Your task to perform on an android device: What's the weather today? Image 0: 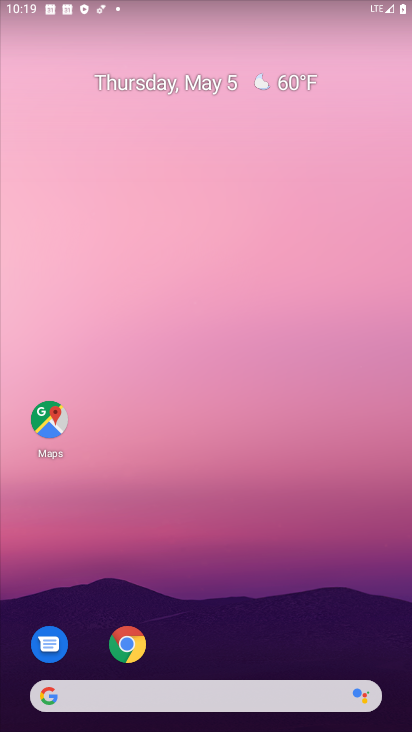
Step 0: drag from (172, 670) to (198, 156)
Your task to perform on an android device: What's the weather today? Image 1: 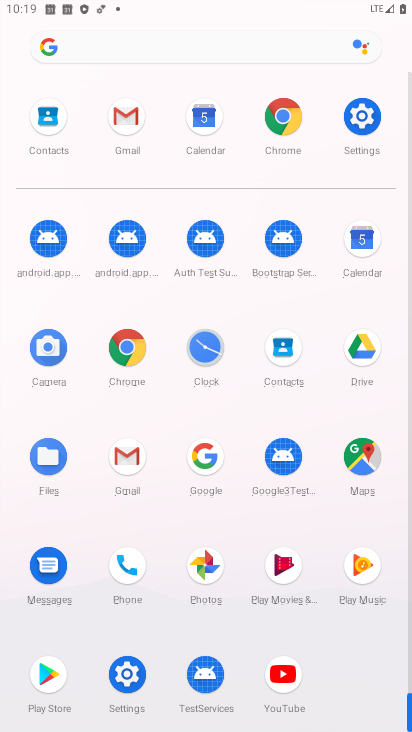
Step 1: drag from (254, 682) to (244, 267)
Your task to perform on an android device: What's the weather today? Image 2: 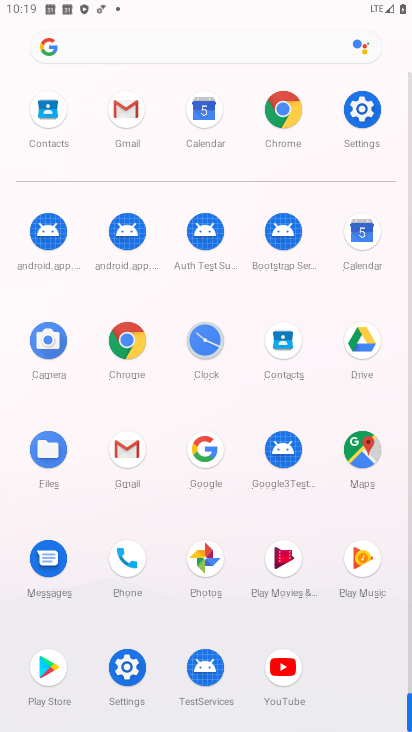
Step 2: click (182, 44)
Your task to perform on an android device: What's the weather today? Image 3: 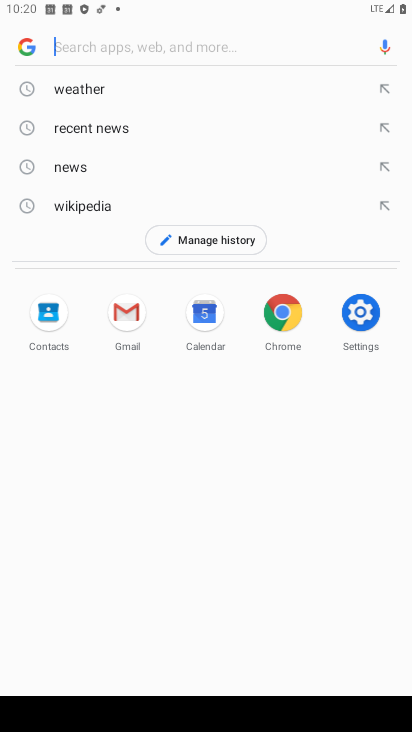
Step 3: type "waether today"
Your task to perform on an android device: What's the weather today? Image 4: 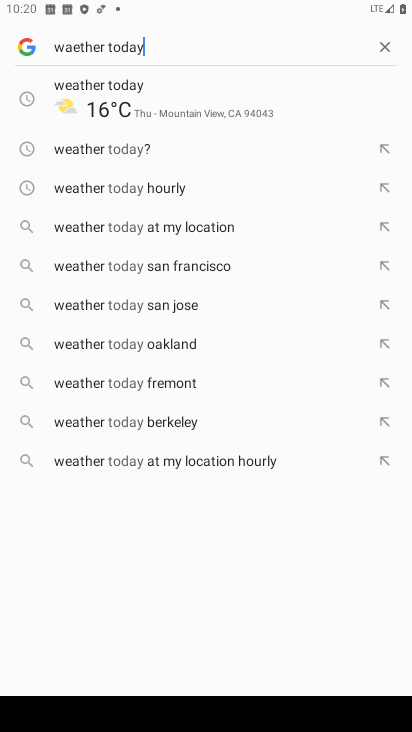
Step 4: click (169, 108)
Your task to perform on an android device: What's the weather today? Image 5: 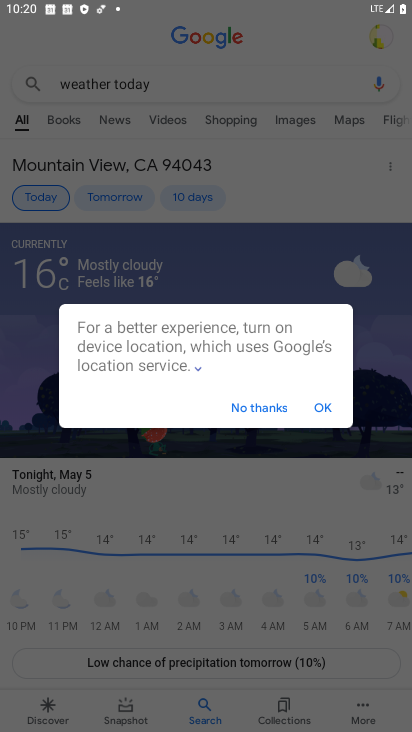
Step 5: drag from (227, 616) to (259, 230)
Your task to perform on an android device: What's the weather today? Image 6: 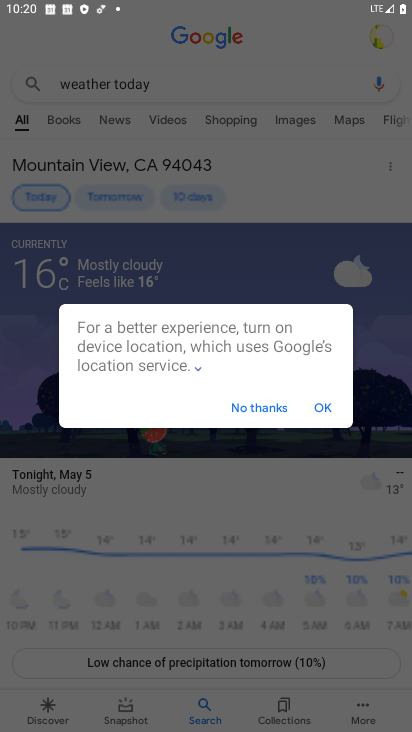
Step 6: click (323, 400)
Your task to perform on an android device: What's the weather today? Image 7: 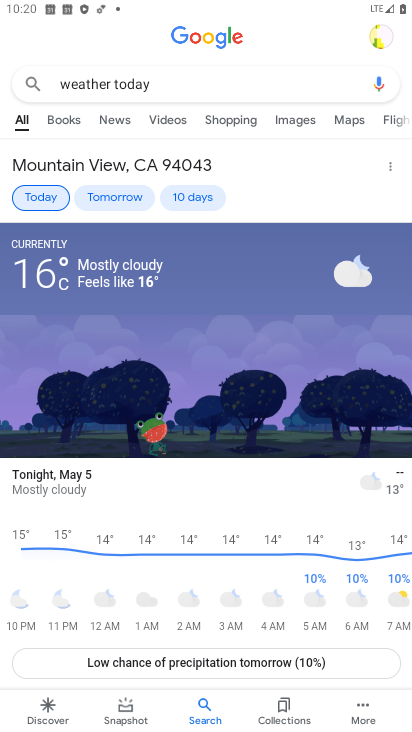
Step 7: task complete